Your task to perform on an android device: delete a single message in the gmail app Image 0: 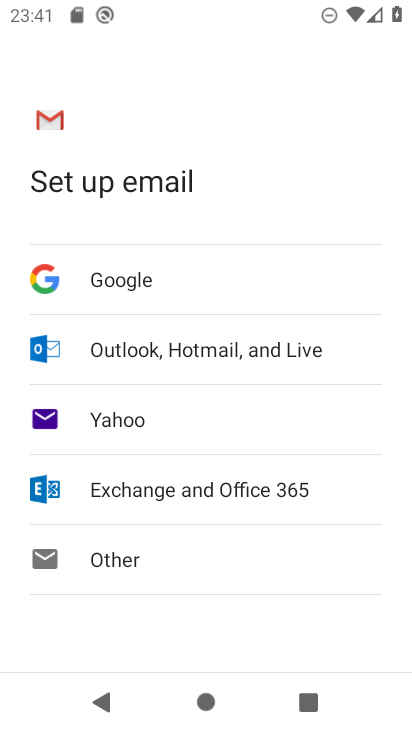
Step 0: press home button
Your task to perform on an android device: delete a single message in the gmail app Image 1: 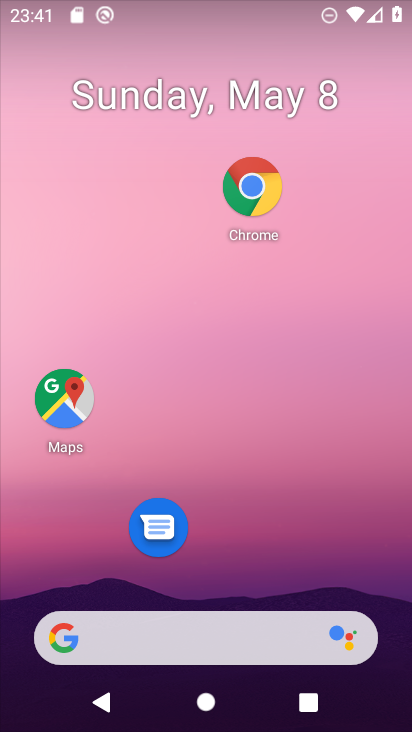
Step 1: drag from (235, 576) to (307, 262)
Your task to perform on an android device: delete a single message in the gmail app Image 2: 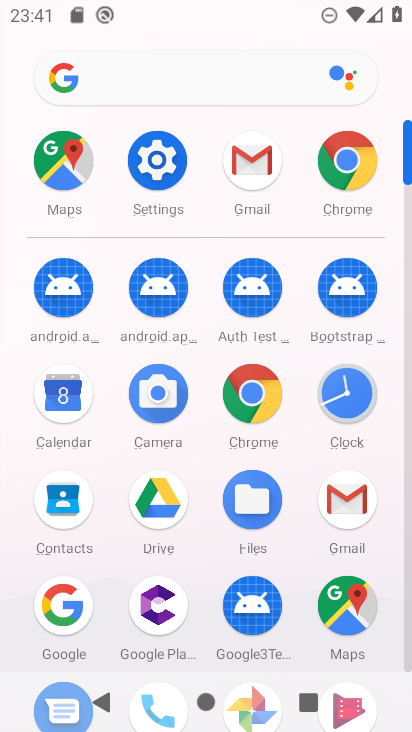
Step 2: click (339, 501)
Your task to perform on an android device: delete a single message in the gmail app Image 3: 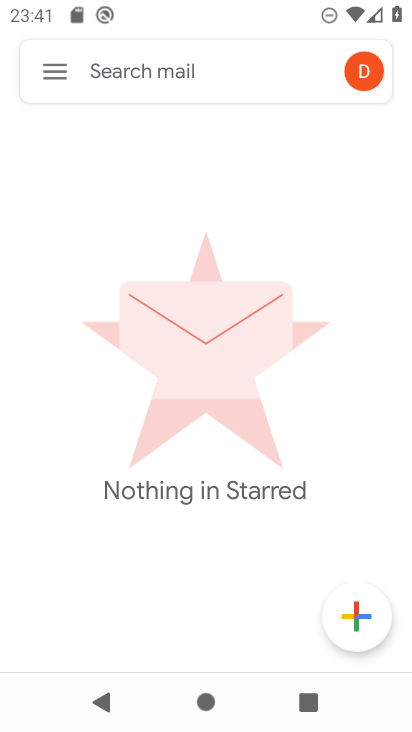
Step 3: click (50, 58)
Your task to perform on an android device: delete a single message in the gmail app Image 4: 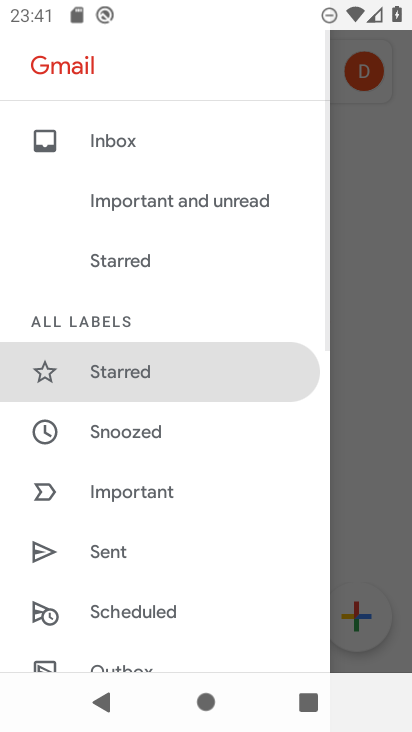
Step 4: drag from (135, 614) to (180, 207)
Your task to perform on an android device: delete a single message in the gmail app Image 5: 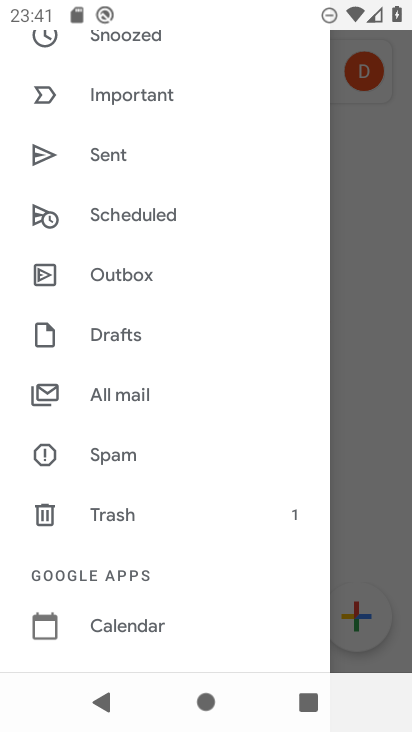
Step 5: click (122, 392)
Your task to perform on an android device: delete a single message in the gmail app Image 6: 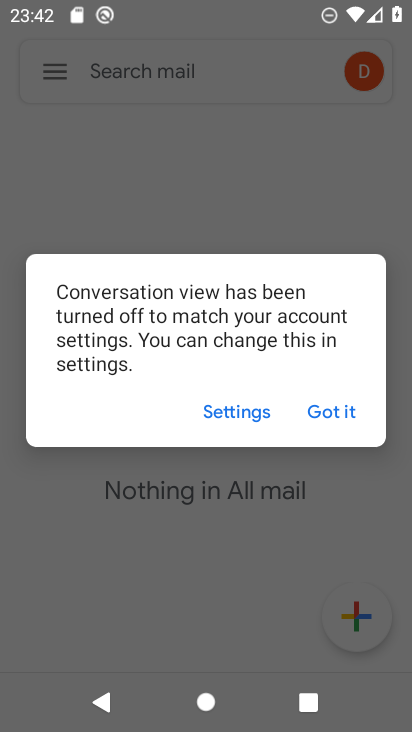
Step 6: click (309, 401)
Your task to perform on an android device: delete a single message in the gmail app Image 7: 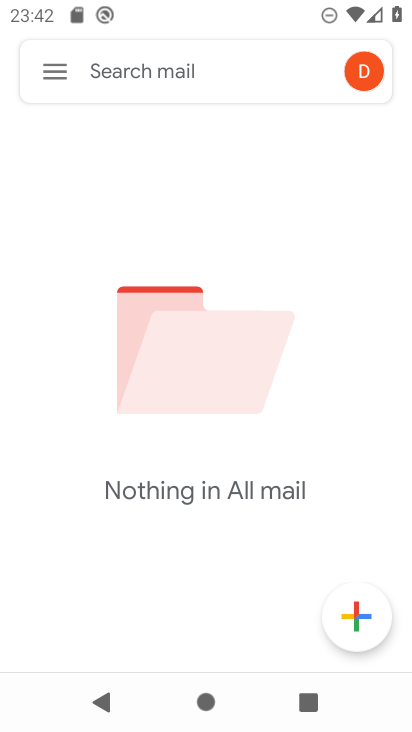
Step 7: task complete